Your task to perform on an android device: install app "Venmo" Image 0: 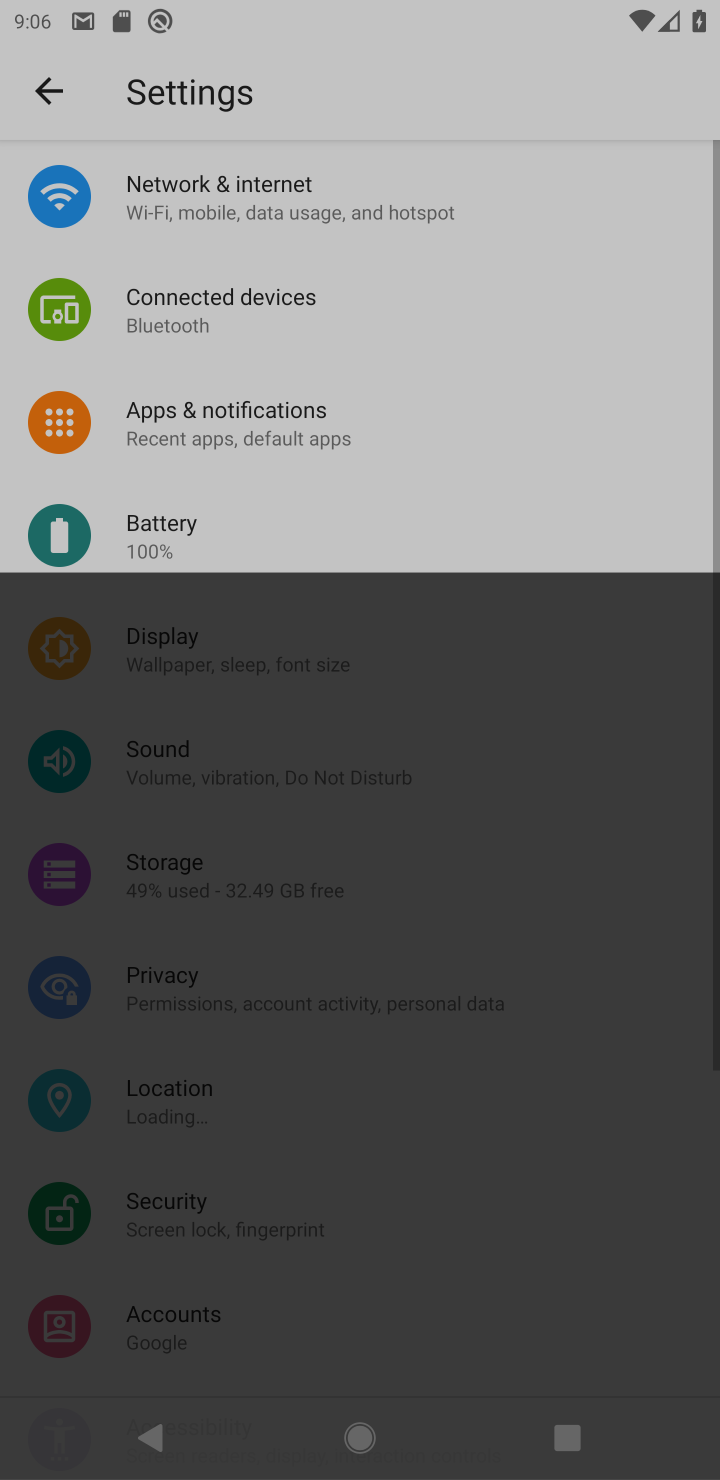
Step 0: press home button
Your task to perform on an android device: install app "Venmo" Image 1: 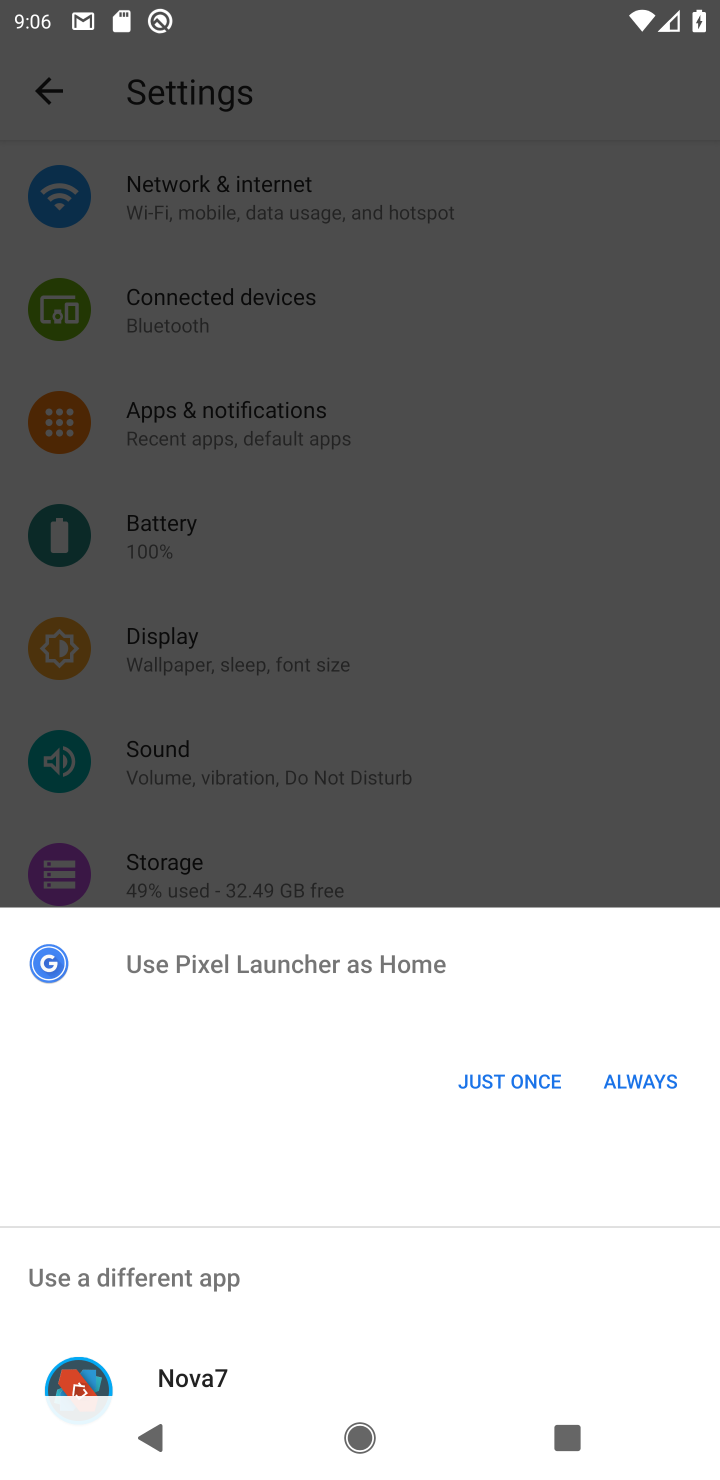
Step 1: press home button
Your task to perform on an android device: install app "Venmo" Image 2: 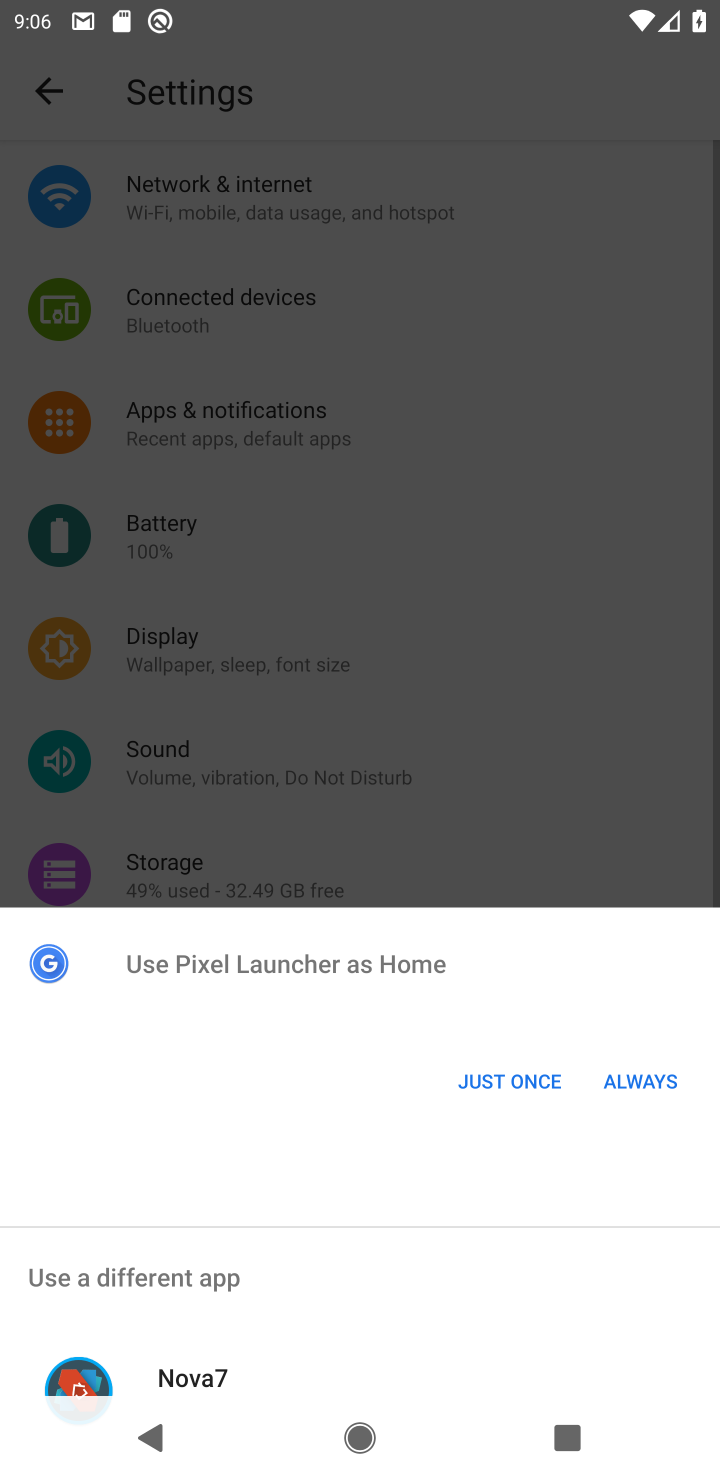
Step 2: press back button
Your task to perform on an android device: install app "Venmo" Image 3: 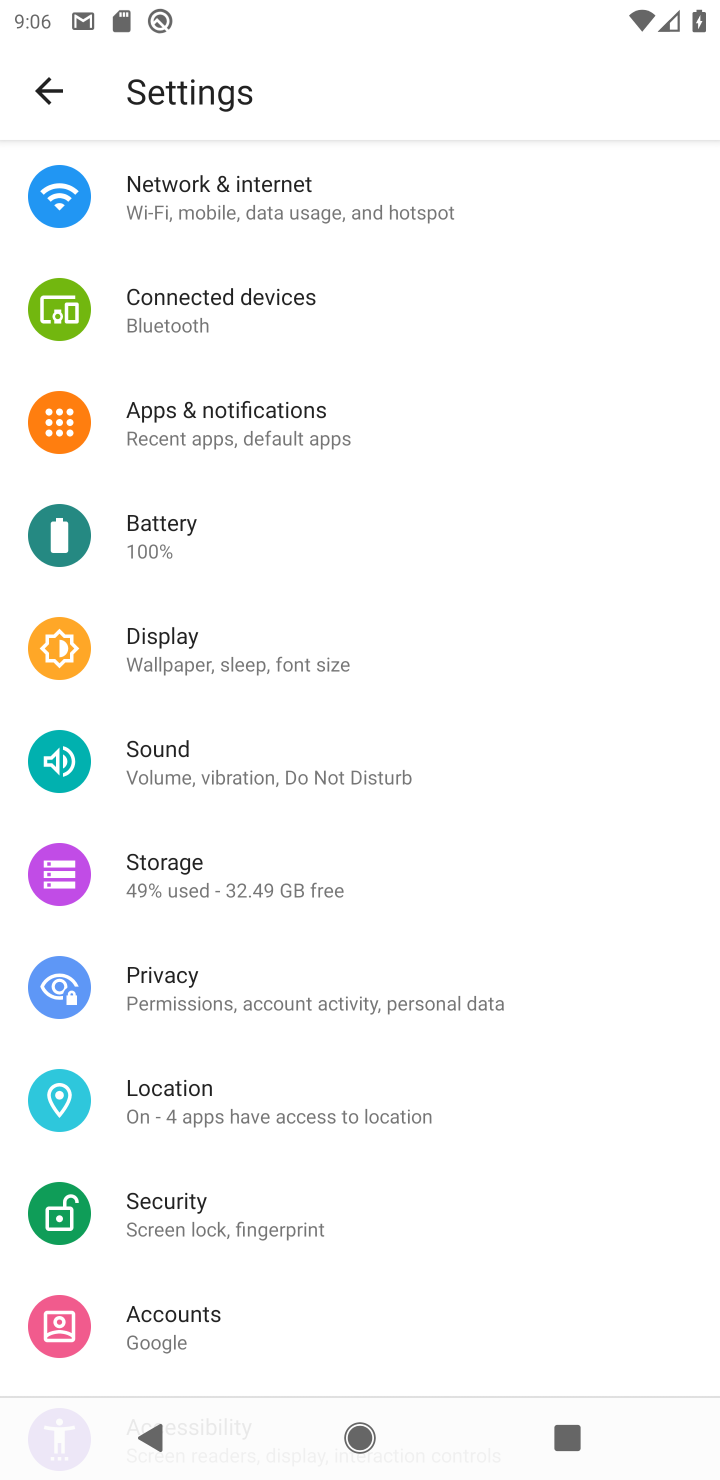
Step 3: press back button
Your task to perform on an android device: install app "Venmo" Image 4: 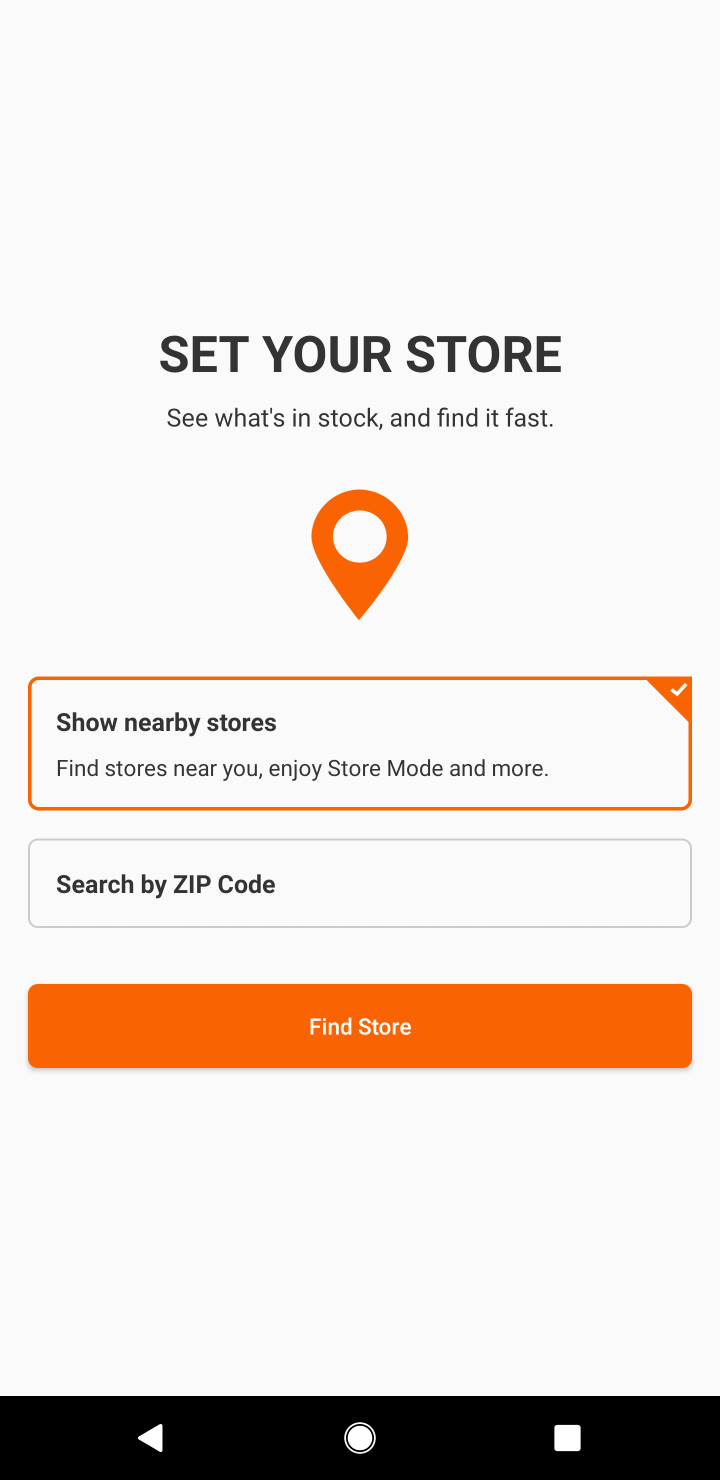
Step 4: press back button
Your task to perform on an android device: install app "Venmo" Image 5: 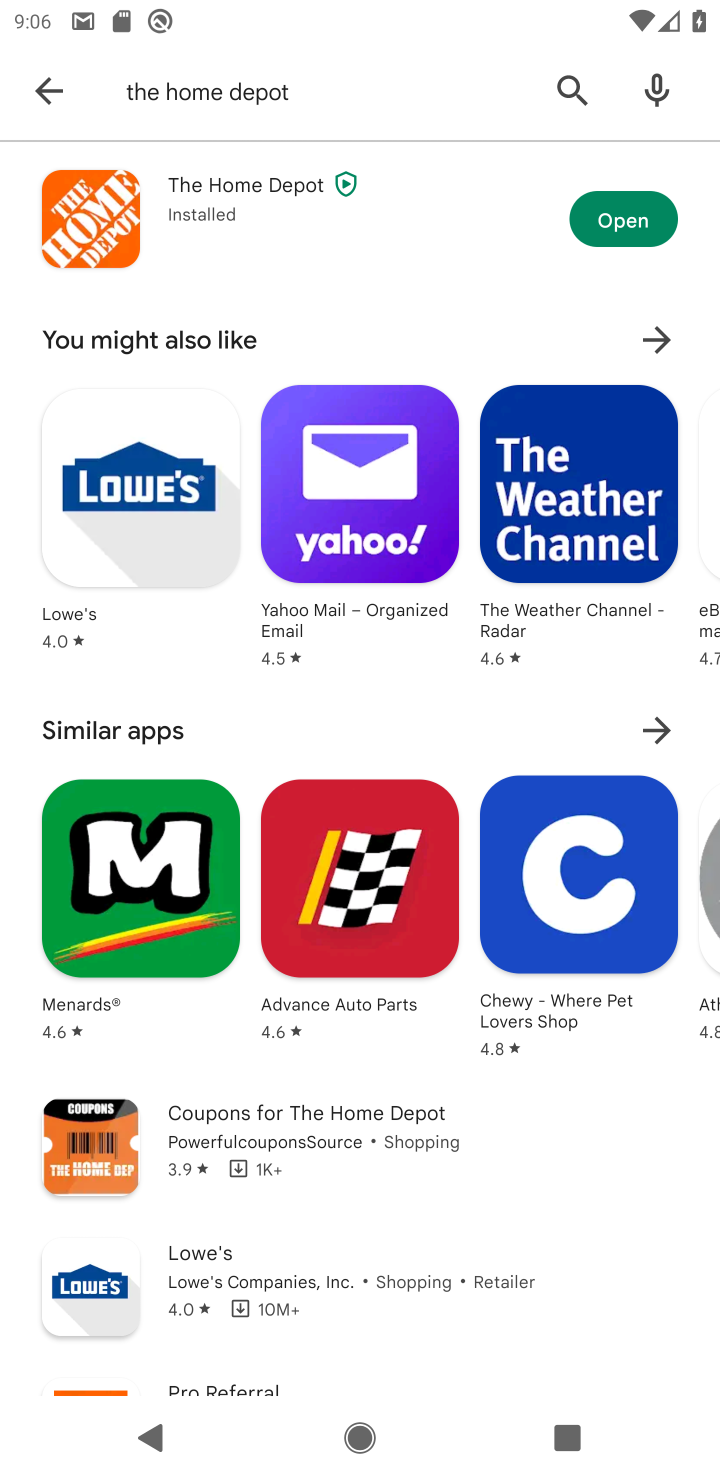
Step 5: click (569, 85)
Your task to perform on an android device: install app "Venmo" Image 6: 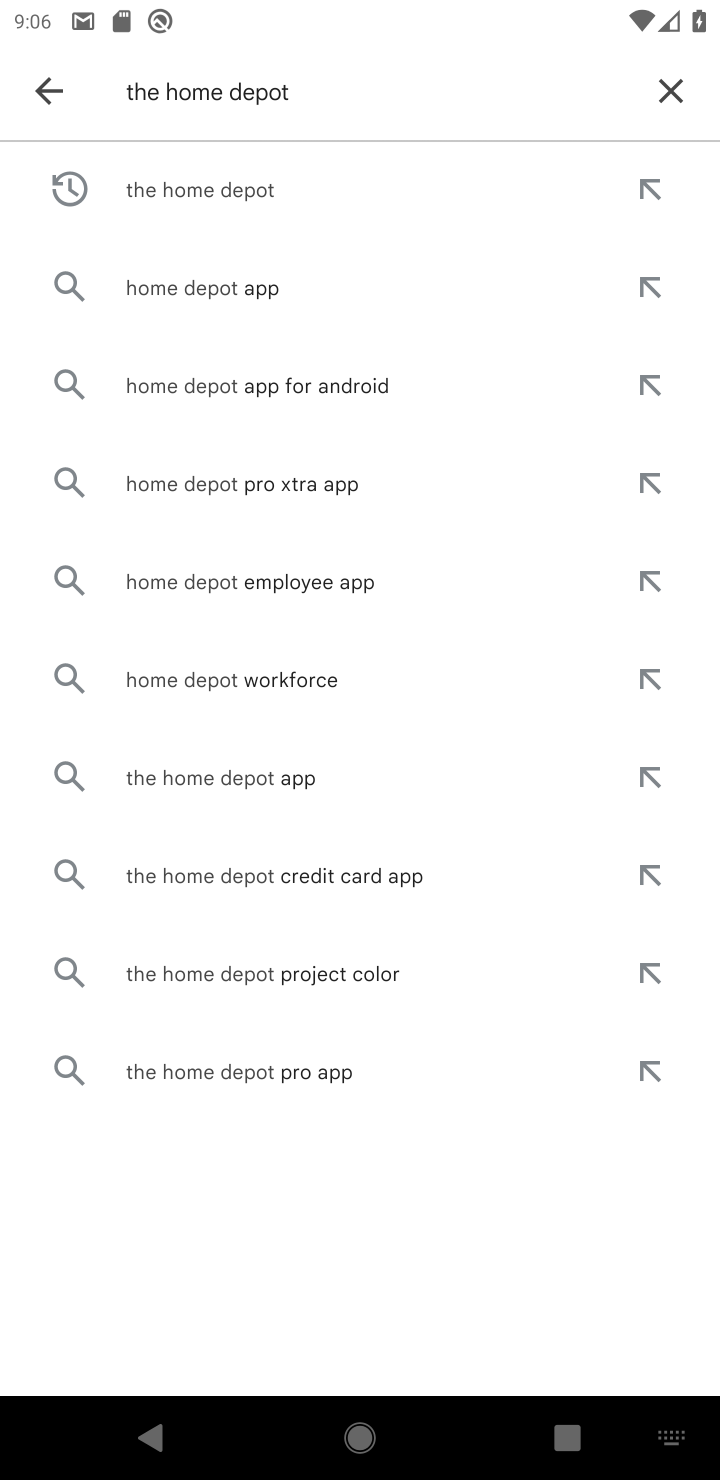
Step 6: click (673, 92)
Your task to perform on an android device: install app "Venmo" Image 7: 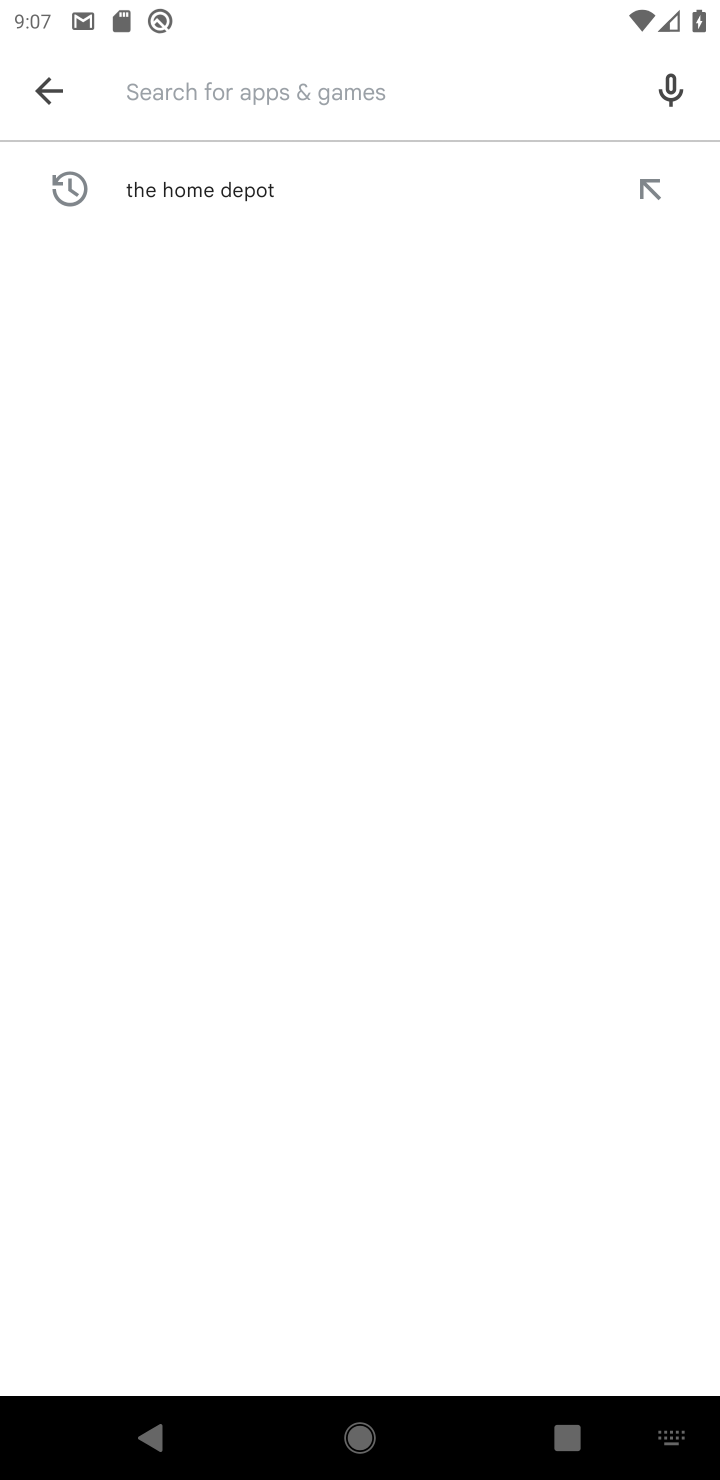
Step 7: type "venmo"
Your task to perform on an android device: install app "Venmo" Image 8: 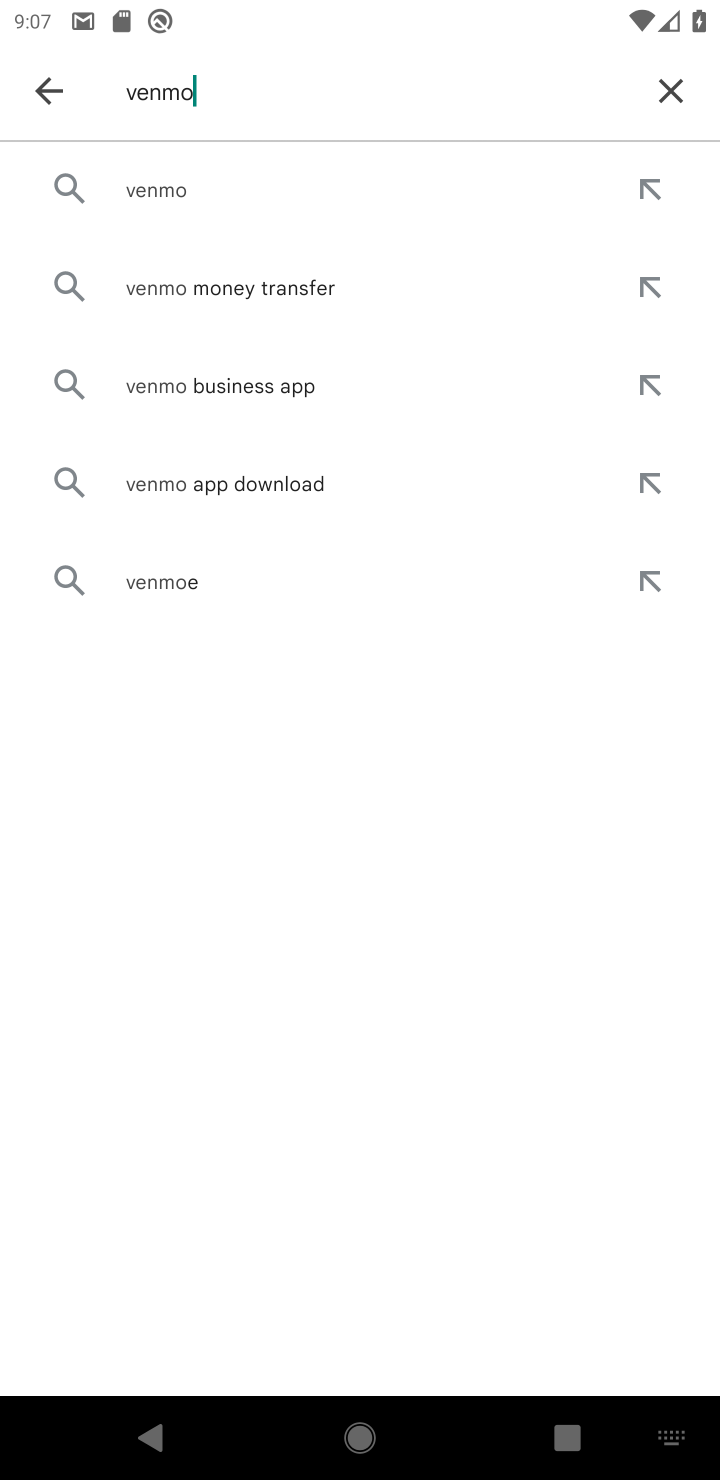
Step 8: click (228, 187)
Your task to perform on an android device: install app "Venmo" Image 9: 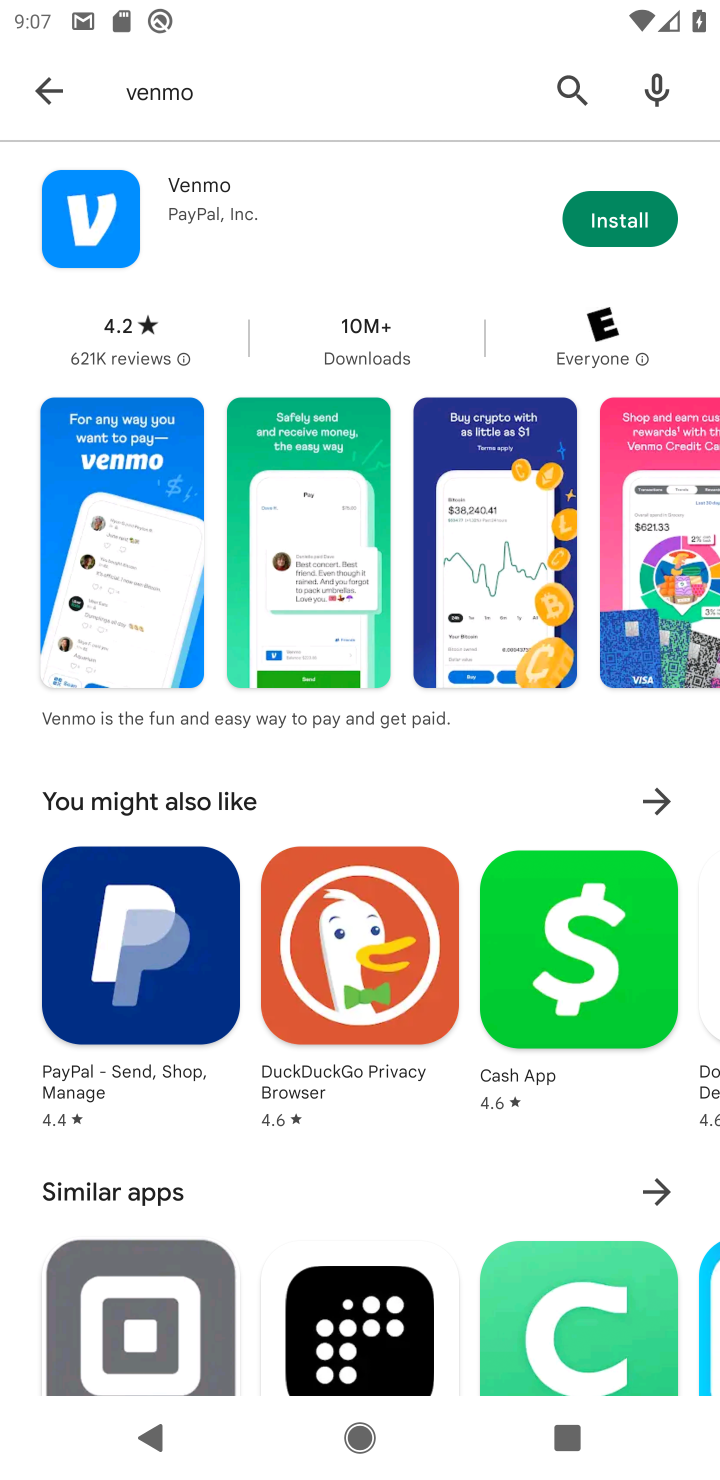
Step 9: click (611, 220)
Your task to perform on an android device: install app "Venmo" Image 10: 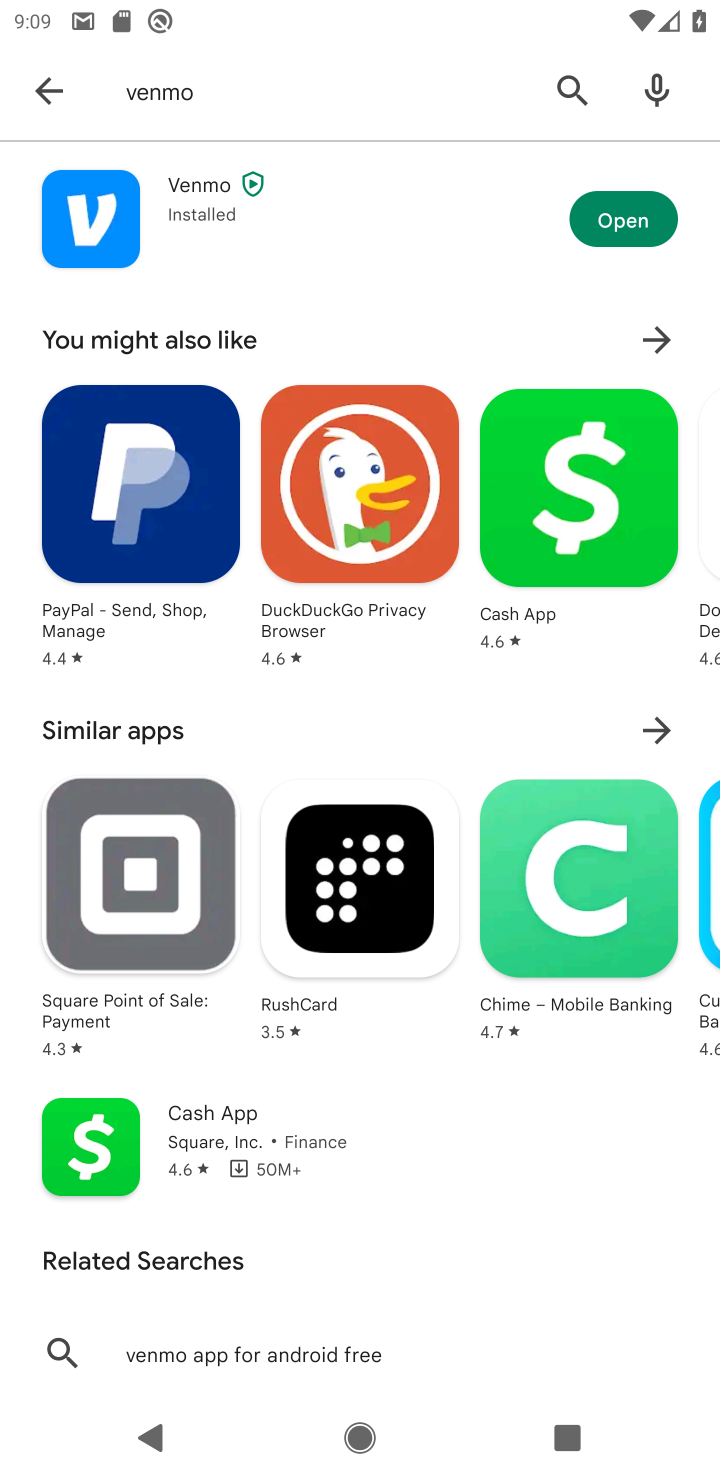
Step 10: task complete